Your task to perform on an android device: add a label to a message in the gmail app Image 0: 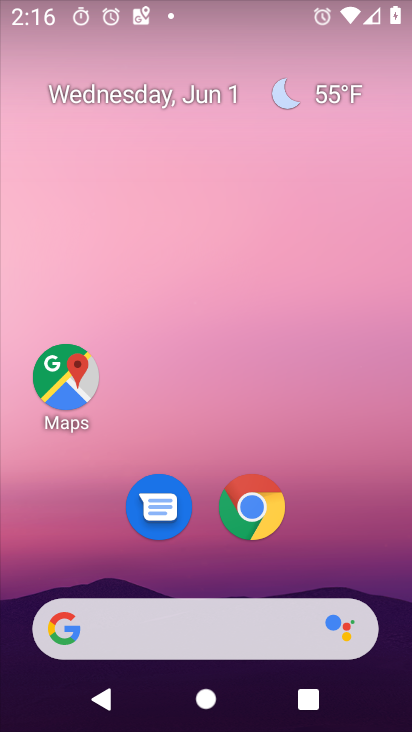
Step 0: drag from (347, 594) to (298, 13)
Your task to perform on an android device: add a label to a message in the gmail app Image 1: 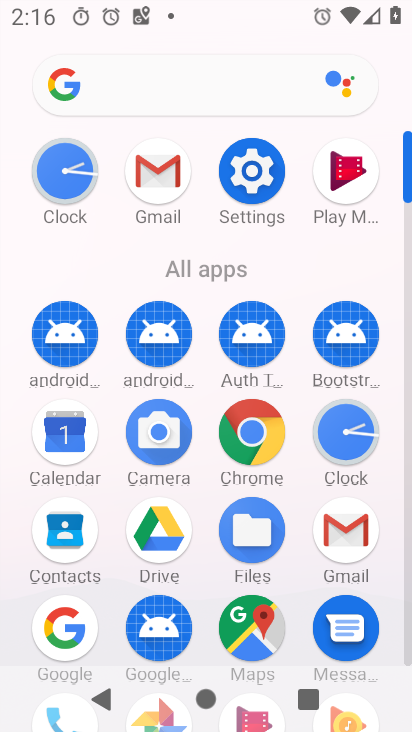
Step 1: click (157, 177)
Your task to perform on an android device: add a label to a message in the gmail app Image 2: 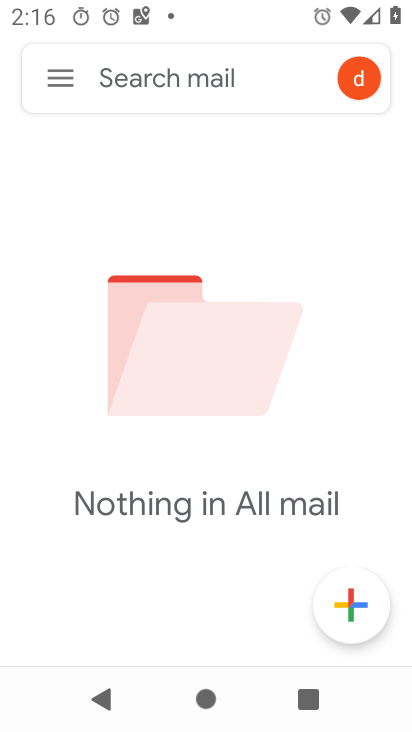
Step 2: task complete